Your task to perform on an android device: turn on improve location accuracy Image 0: 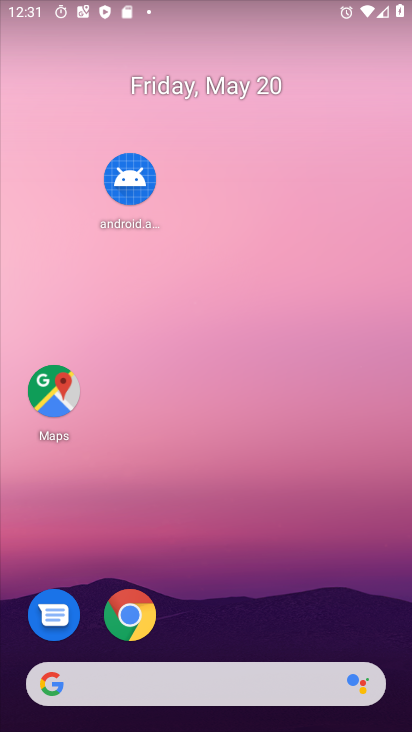
Step 0: press home button
Your task to perform on an android device: turn on improve location accuracy Image 1: 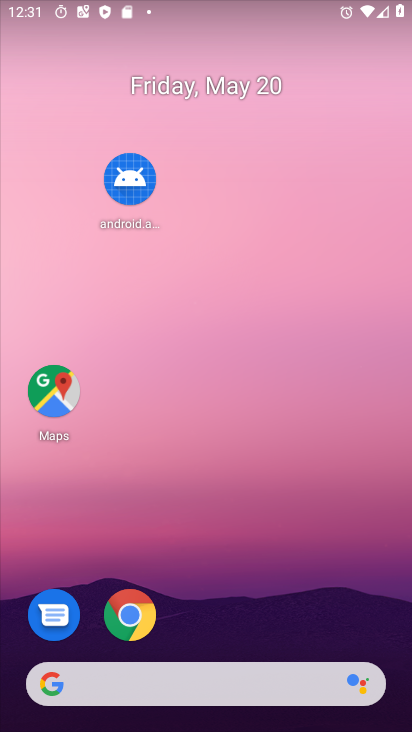
Step 1: drag from (296, 606) to (306, 229)
Your task to perform on an android device: turn on improve location accuracy Image 2: 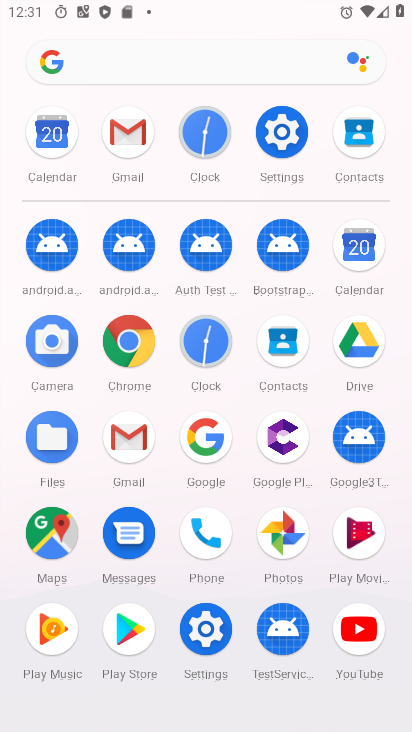
Step 2: click (201, 640)
Your task to perform on an android device: turn on improve location accuracy Image 3: 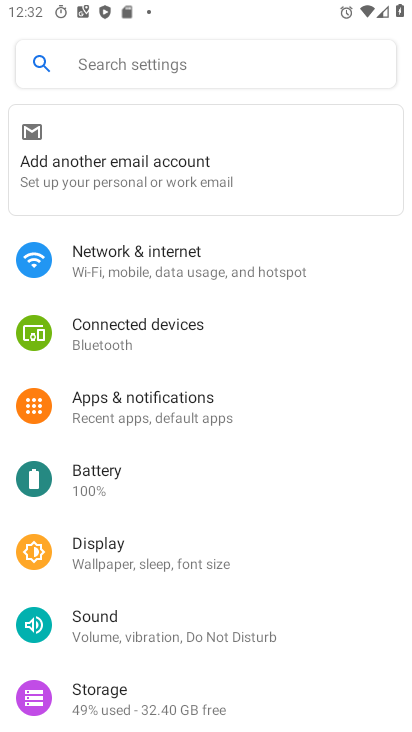
Step 3: drag from (245, 642) to (208, 358)
Your task to perform on an android device: turn on improve location accuracy Image 4: 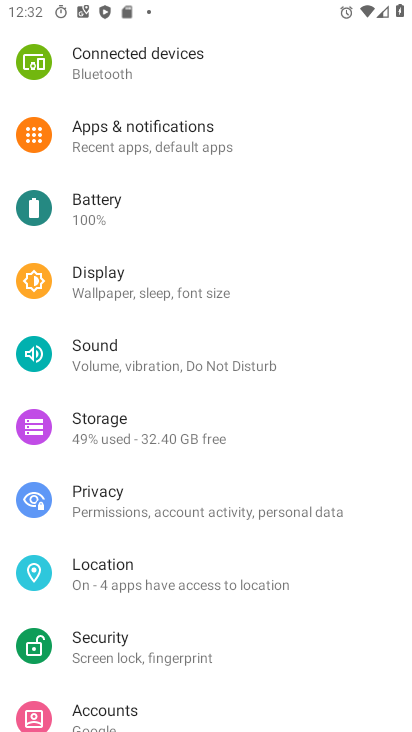
Step 4: click (185, 573)
Your task to perform on an android device: turn on improve location accuracy Image 5: 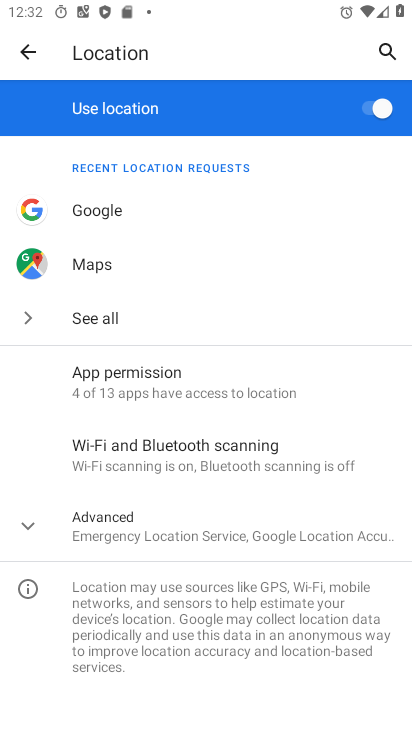
Step 5: click (184, 529)
Your task to perform on an android device: turn on improve location accuracy Image 6: 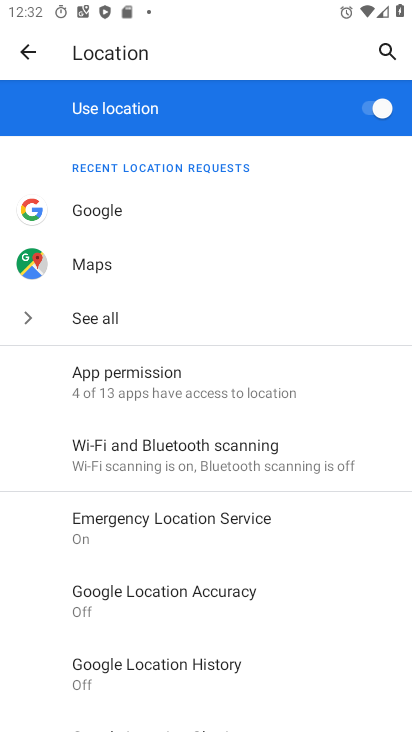
Step 6: click (212, 595)
Your task to perform on an android device: turn on improve location accuracy Image 7: 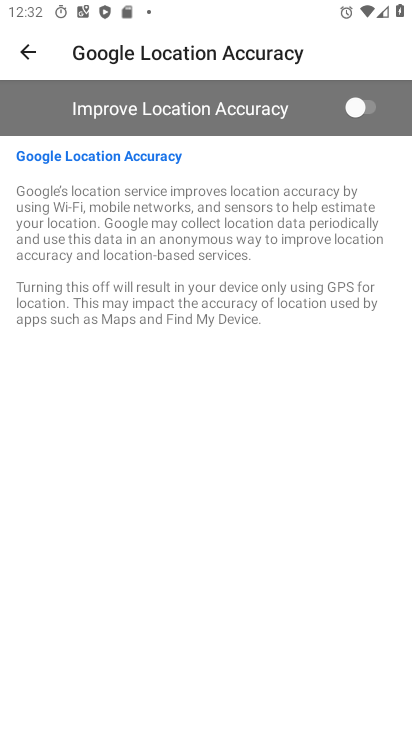
Step 7: click (365, 96)
Your task to perform on an android device: turn on improve location accuracy Image 8: 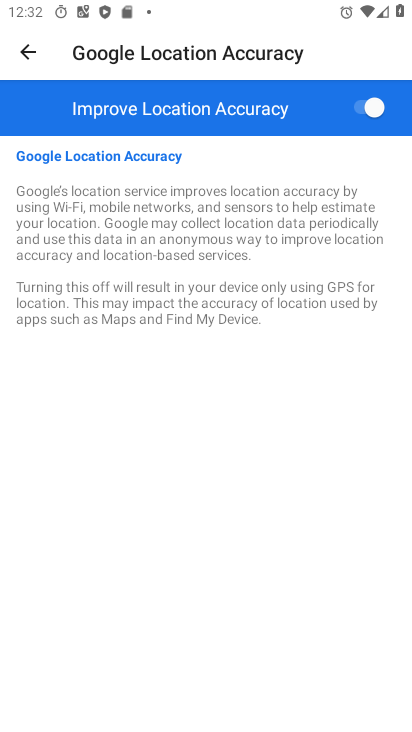
Step 8: task complete